Your task to perform on an android device: turn on showing notifications on the lock screen Image 0: 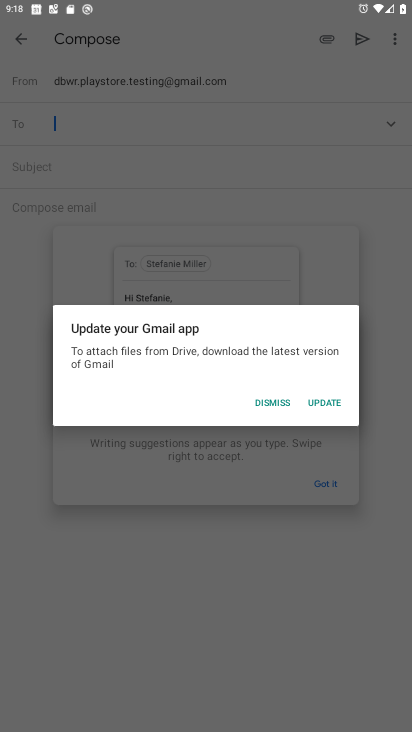
Step 0: press home button
Your task to perform on an android device: turn on showing notifications on the lock screen Image 1: 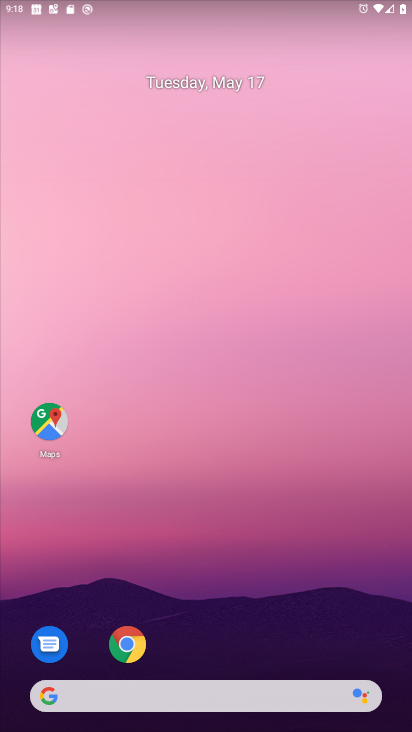
Step 1: drag from (229, 667) to (235, 39)
Your task to perform on an android device: turn on showing notifications on the lock screen Image 2: 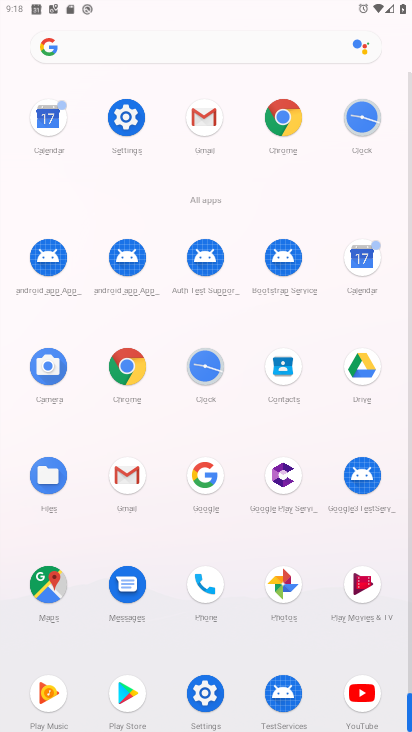
Step 2: click (127, 111)
Your task to perform on an android device: turn on showing notifications on the lock screen Image 3: 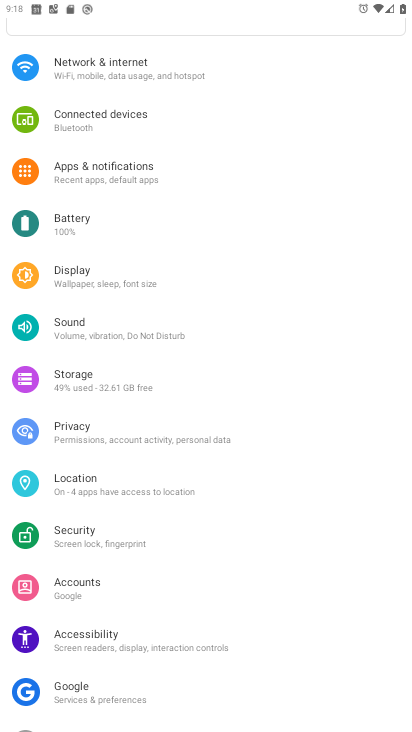
Step 3: click (155, 170)
Your task to perform on an android device: turn on showing notifications on the lock screen Image 4: 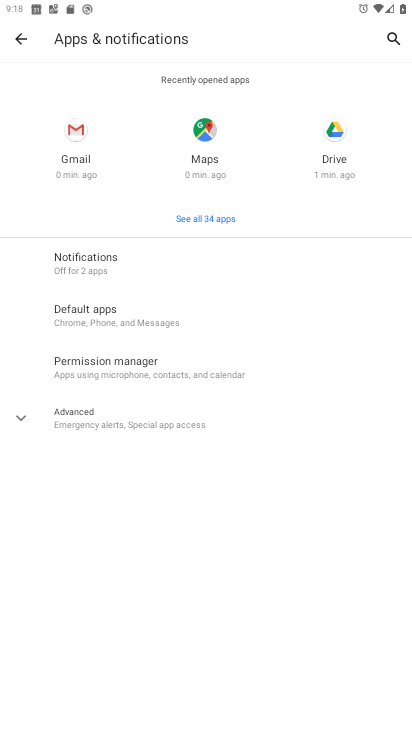
Step 4: click (131, 261)
Your task to perform on an android device: turn on showing notifications on the lock screen Image 5: 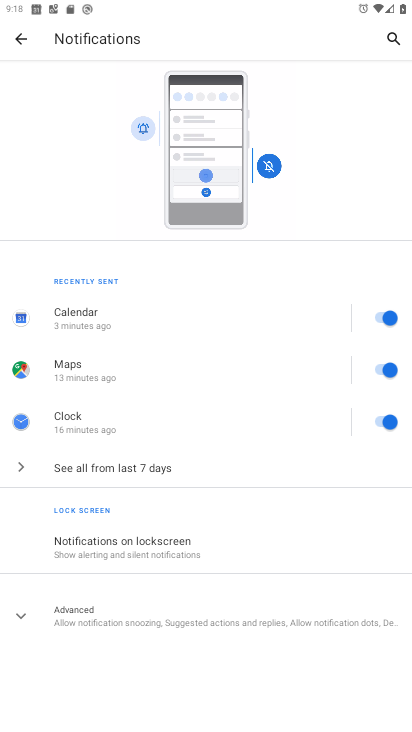
Step 5: click (206, 543)
Your task to perform on an android device: turn on showing notifications on the lock screen Image 6: 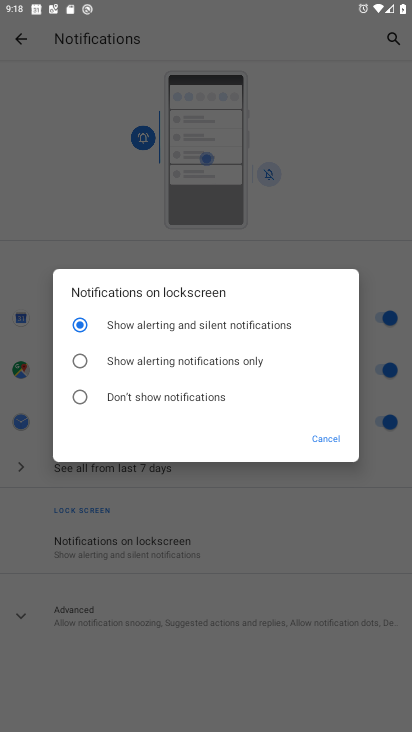
Step 6: click (83, 358)
Your task to perform on an android device: turn on showing notifications on the lock screen Image 7: 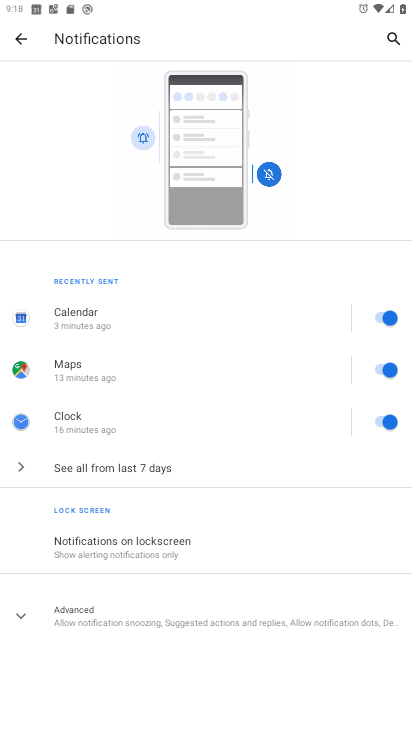
Step 7: task complete